Your task to perform on an android device: Open sound settings Image 0: 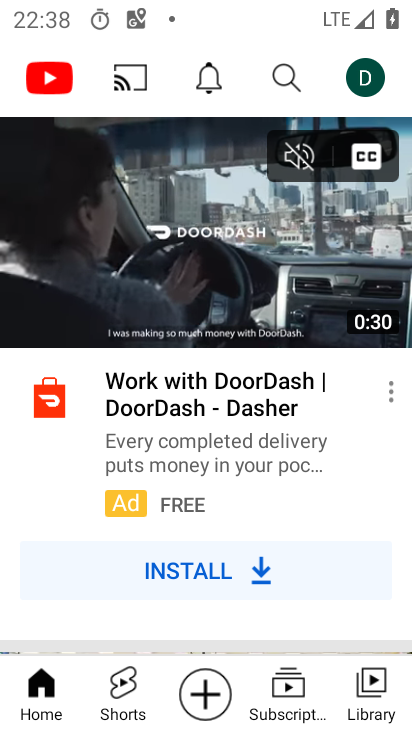
Step 0: press home button
Your task to perform on an android device: Open sound settings Image 1: 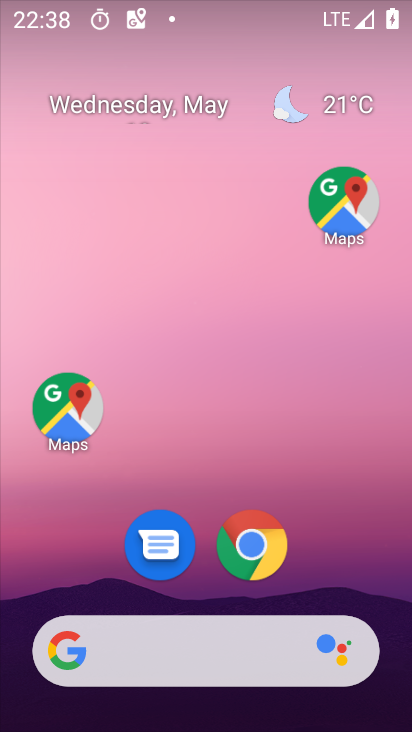
Step 1: drag from (356, 598) to (410, 213)
Your task to perform on an android device: Open sound settings Image 2: 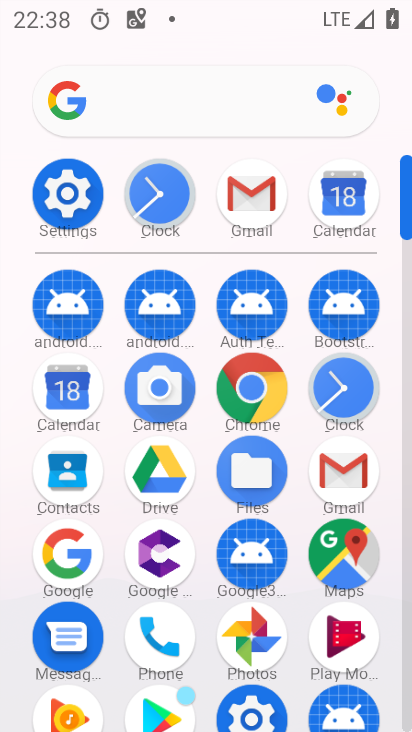
Step 2: click (77, 203)
Your task to perform on an android device: Open sound settings Image 3: 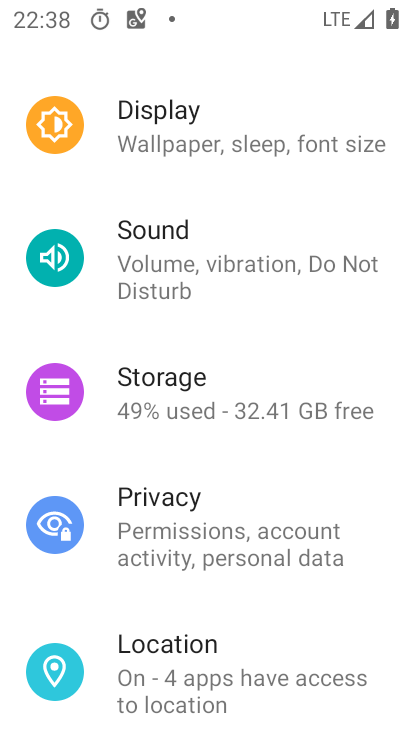
Step 3: click (208, 284)
Your task to perform on an android device: Open sound settings Image 4: 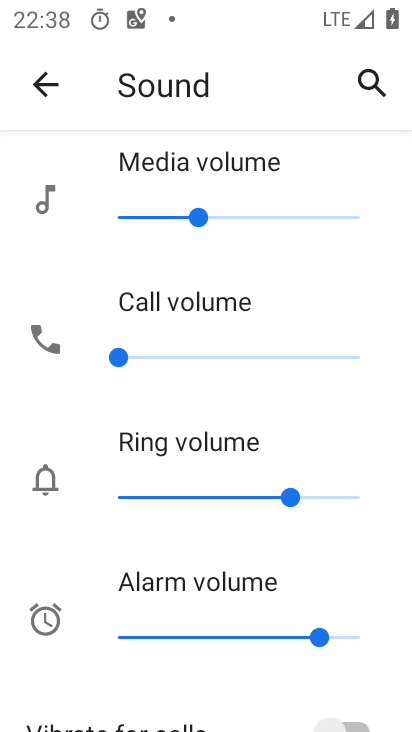
Step 4: task complete